Your task to perform on an android device: add a contact in the contacts app Image 0: 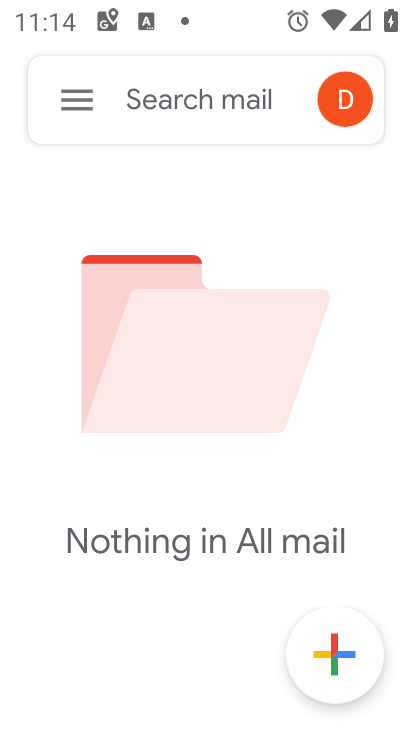
Step 0: press home button
Your task to perform on an android device: add a contact in the contacts app Image 1: 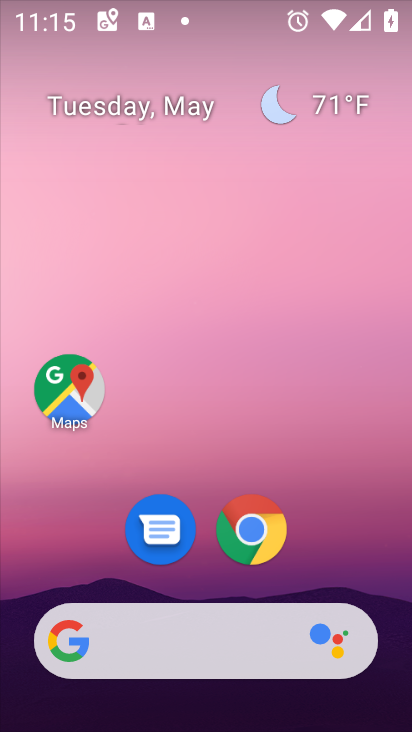
Step 1: click (256, 541)
Your task to perform on an android device: add a contact in the contacts app Image 2: 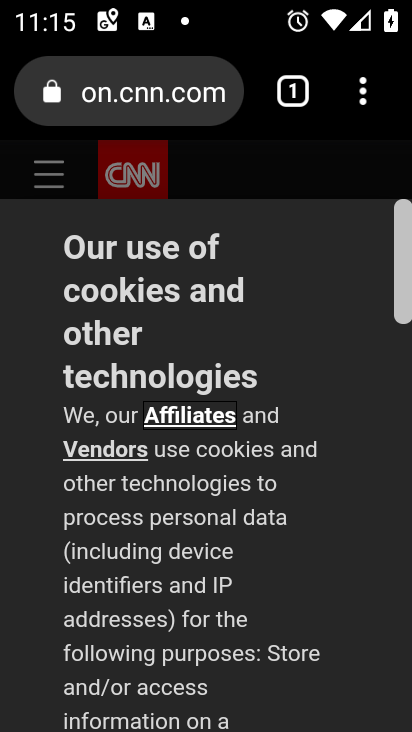
Step 2: press home button
Your task to perform on an android device: add a contact in the contacts app Image 3: 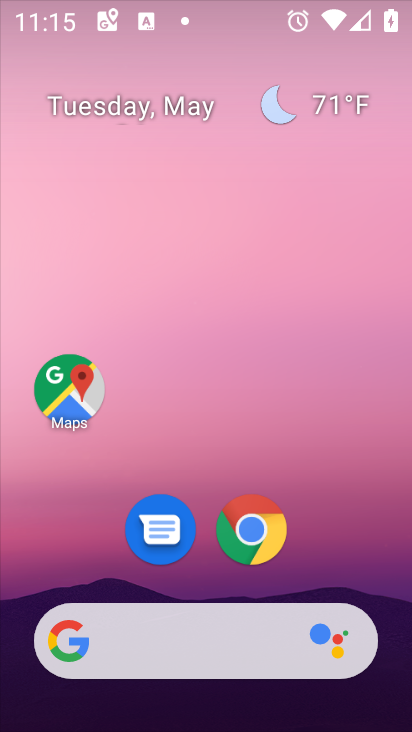
Step 3: drag from (207, 559) to (193, 103)
Your task to perform on an android device: add a contact in the contacts app Image 4: 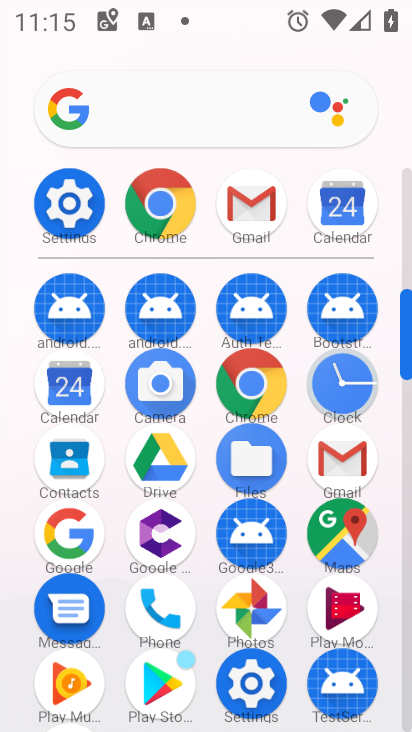
Step 4: click (79, 479)
Your task to perform on an android device: add a contact in the contacts app Image 5: 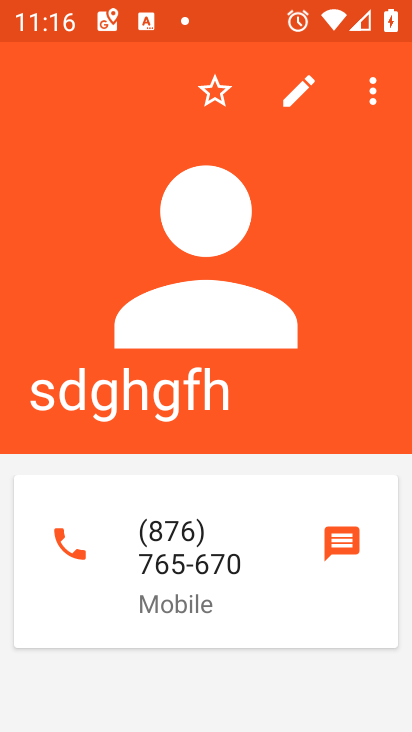
Step 5: press back button
Your task to perform on an android device: add a contact in the contacts app Image 6: 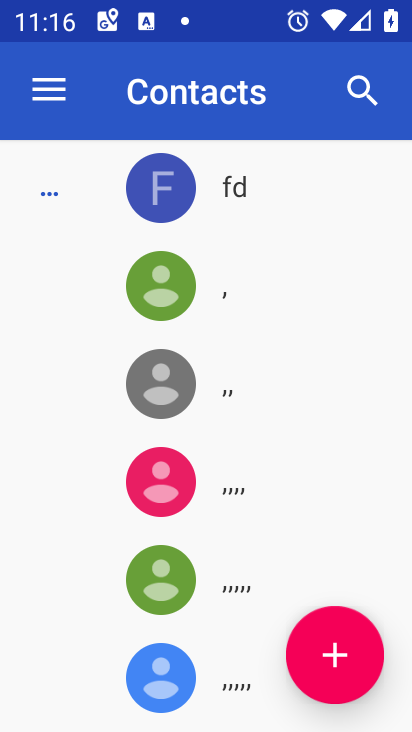
Step 6: click (367, 682)
Your task to perform on an android device: add a contact in the contacts app Image 7: 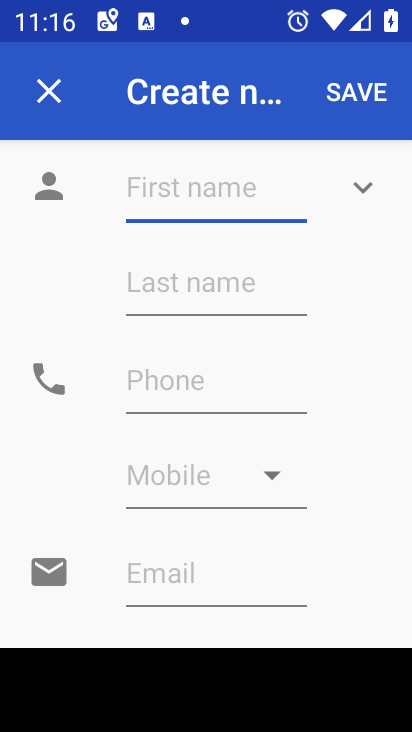
Step 7: type "guhhgfjv"
Your task to perform on an android device: add a contact in the contacts app Image 8: 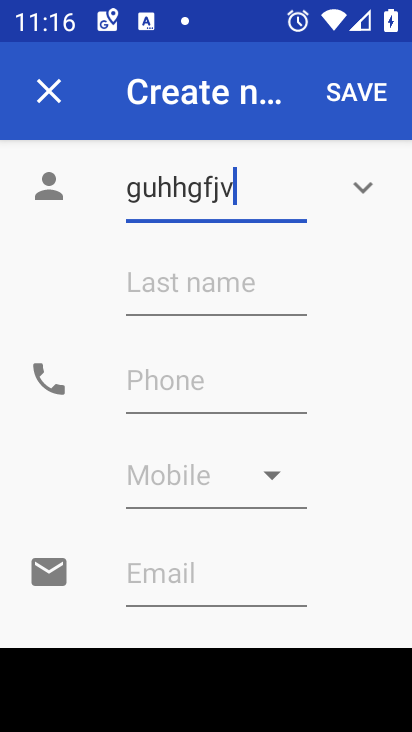
Step 8: click (194, 394)
Your task to perform on an android device: add a contact in the contacts app Image 9: 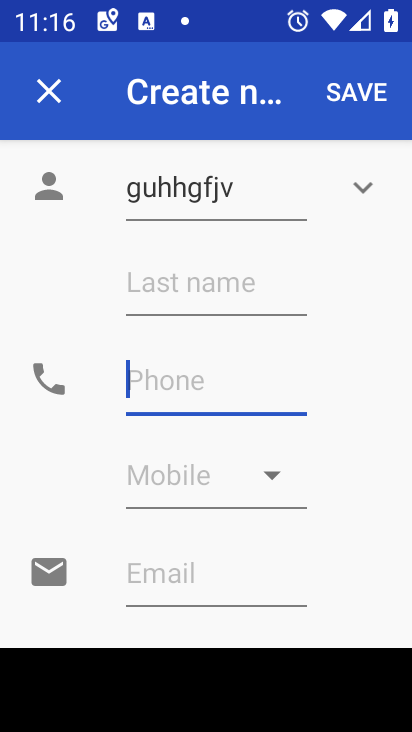
Step 9: type "87787767868"
Your task to perform on an android device: add a contact in the contacts app Image 10: 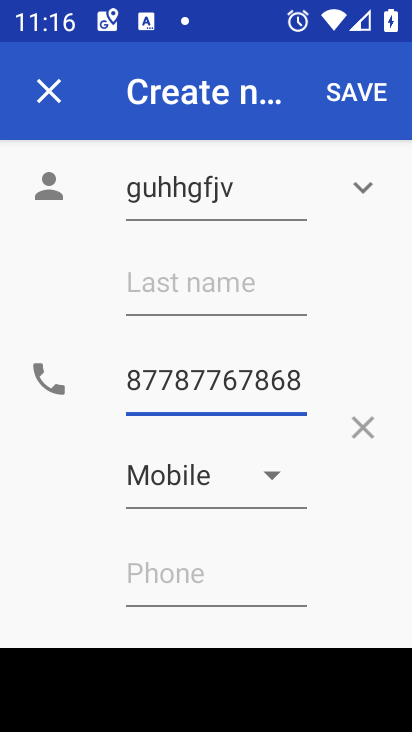
Step 10: click (379, 98)
Your task to perform on an android device: add a contact in the contacts app Image 11: 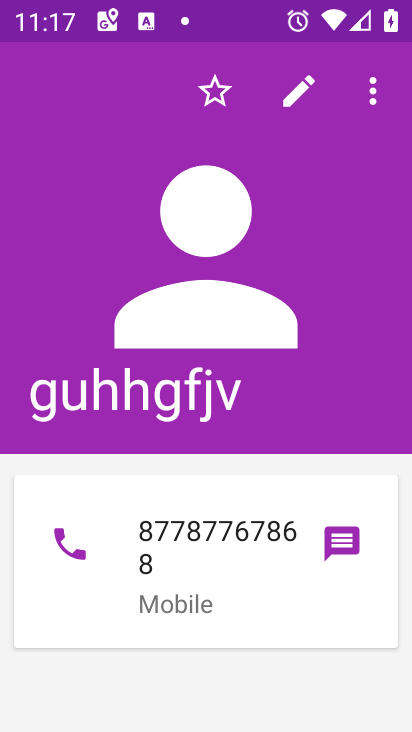
Step 11: task complete